Your task to perform on an android device: toggle translation in the chrome app Image 0: 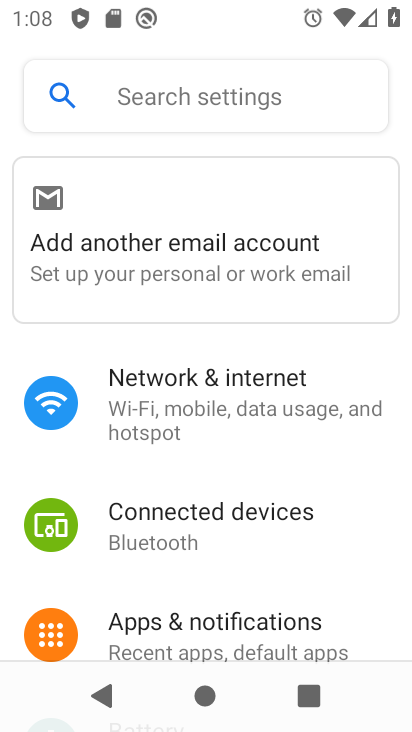
Step 0: press home button
Your task to perform on an android device: toggle translation in the chrome app Image 1: 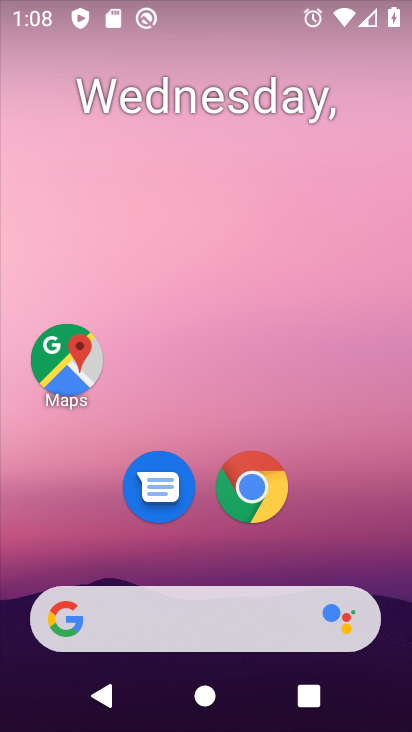
Step 1: click (266, 488)
Your task to perform on an android device: toggle translation in the chrome app Image 2: 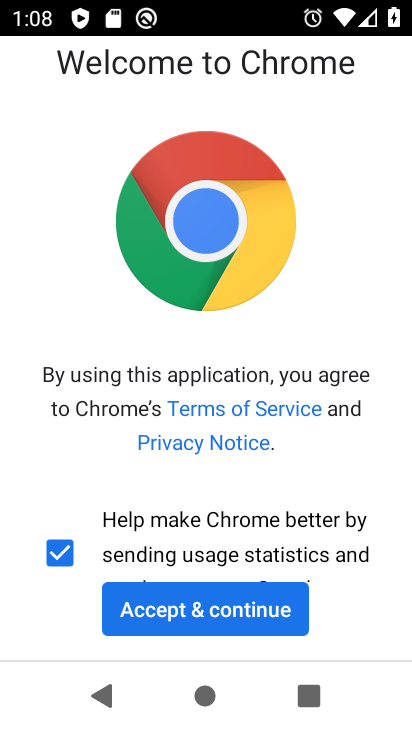
Step 2: click (235, 605)
Your task to perform on an android device: toggle translation in the chrome app Image 3: 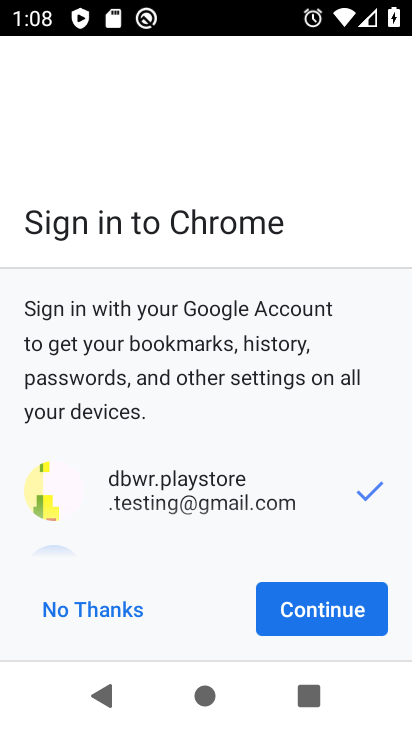
Step 3: click (355, 602)
Your task to perform on an android device: toggle translation in the chrome app Image 4: 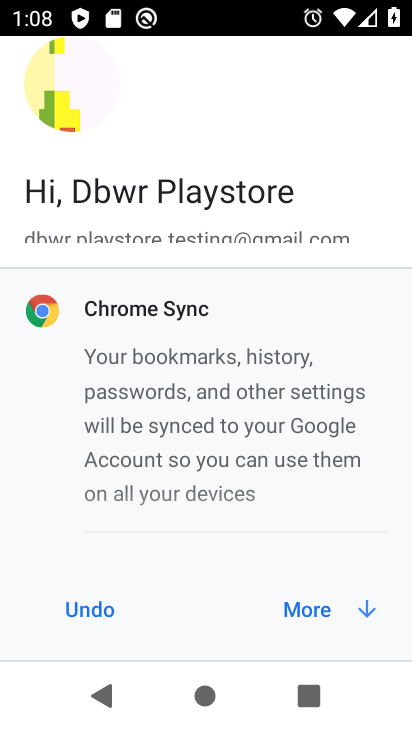
Step 4: click (347, 607)
Your task to perform on an android device: toggle translation in the chrome app Image 5: 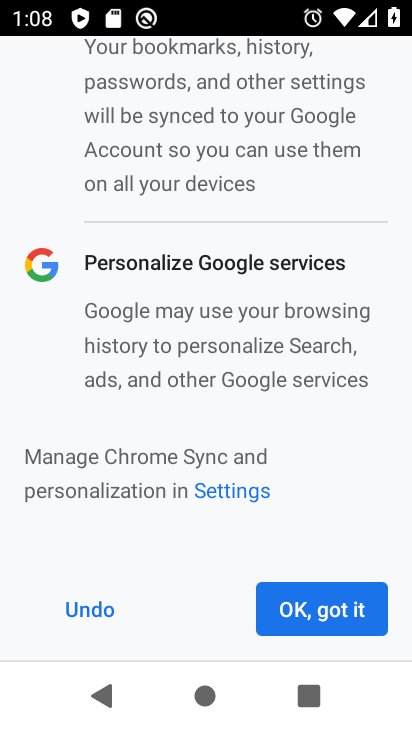
Step 5: click (347, 607)
Your task to perform on an android device: toggle translation in the chrome app Image 6: 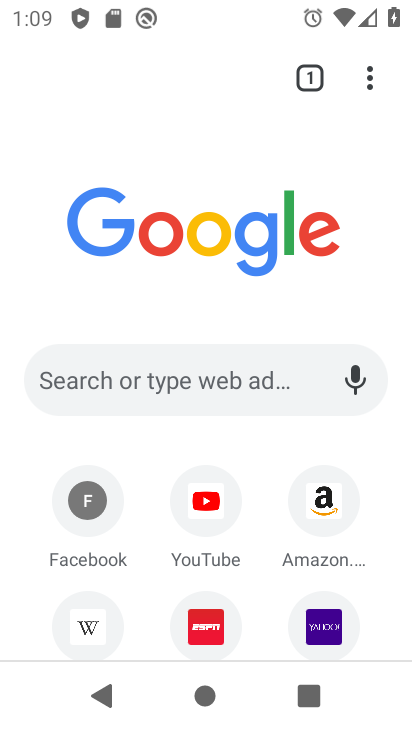
Step 6: click (373, 71)
Your task to perform on an android device: toggle translation in the chrome app Image 7: 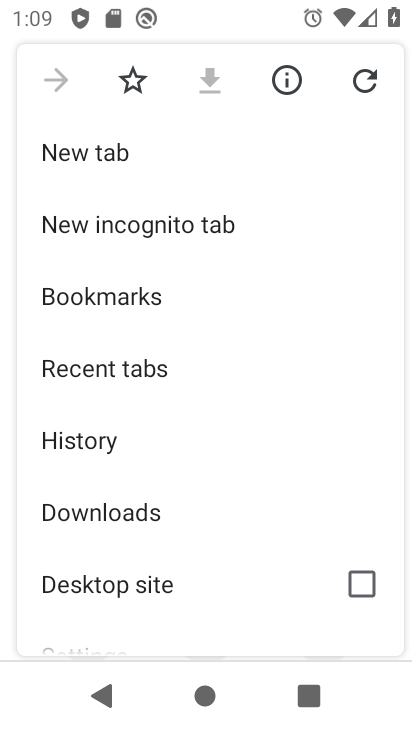
Step 7: drag from (196, 537) to (180, 209)
Your task to perform on an android device: toggle translation in the chrome app Image 8: 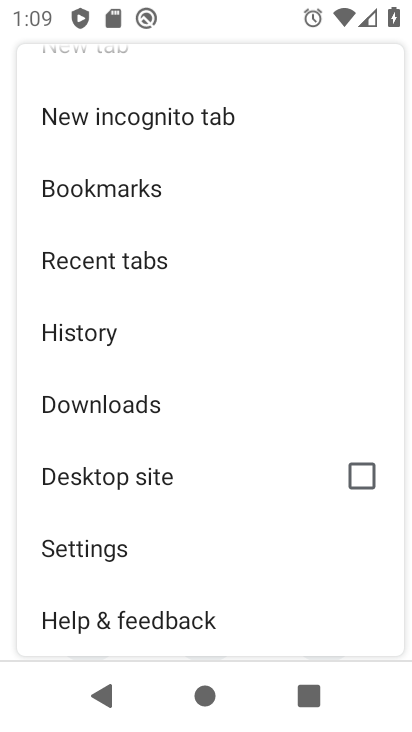
Step 8: click (193, 552)
Your task to perform on an android device: toggle translation in the chrome app Image 9: 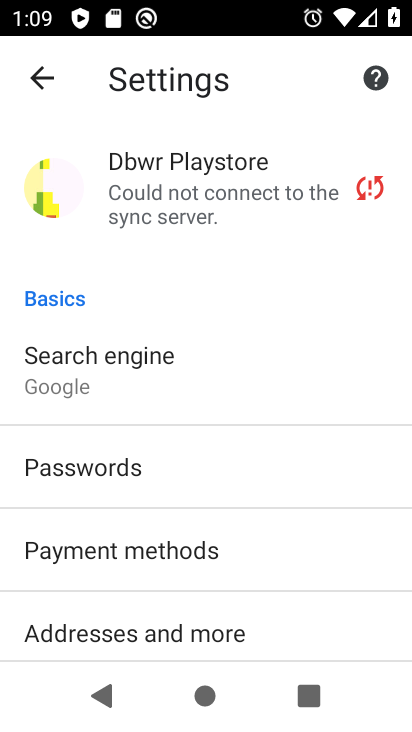
Step 9: drag from (236, 594) to (209, 299)
Your task to perform on an android device: toggle translation in the chrome app Image 10: 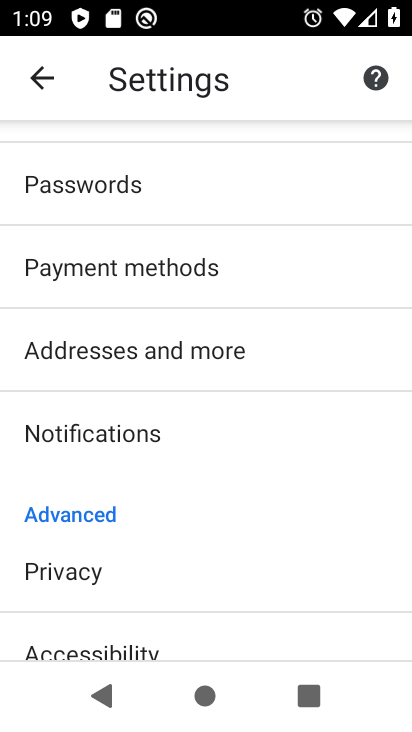
Step 10: drag from (232, 475) to (206, 177)
Your task to perform on an android device: toggle translation in the chrome app Image 11: 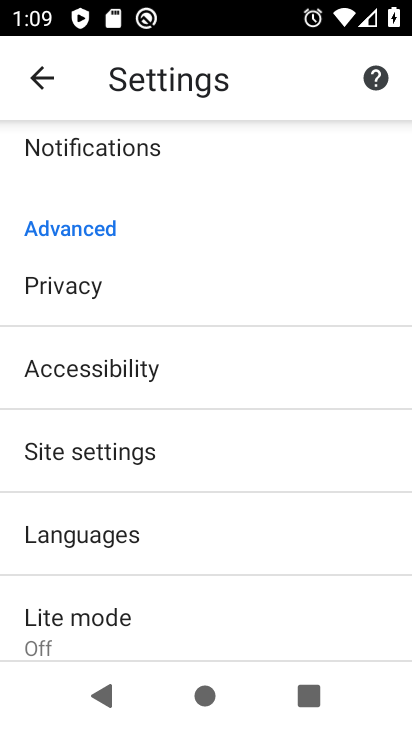
Step 11: click (212, 534)
Your task to perform on an android device: toggle translation in the chrome app Image 12: 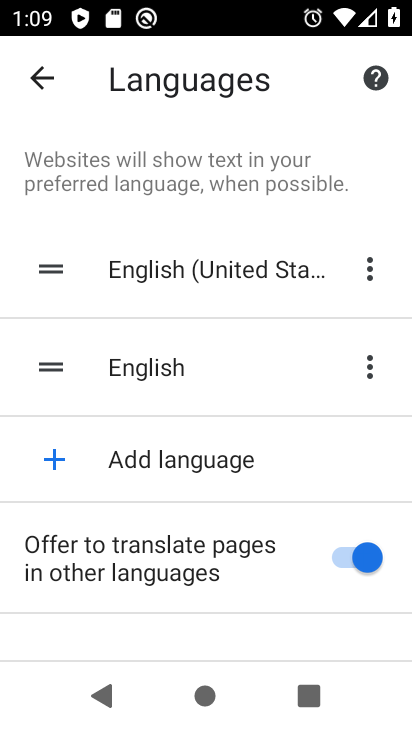
Step 12: click (324, 556)
Your task to perform on an android device: toggle translation in the chrome app Image 13: 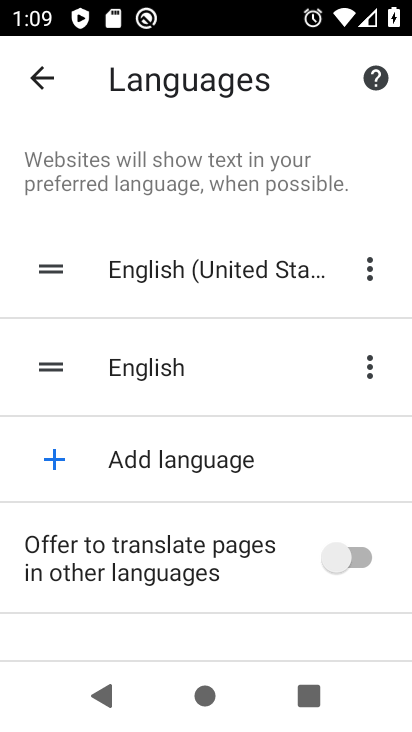
Step 13: task complete